Your task to perform on an android device: delete location history Image 0: 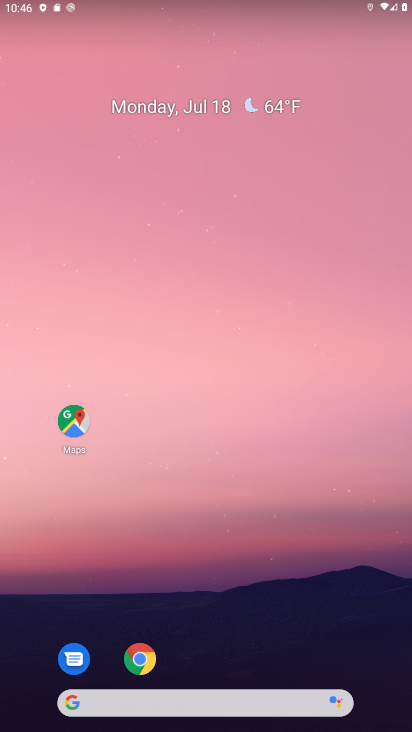
Step 0: drag from (206, 715) to (264, 5)
Your task to perform on an android device: delete location history Image 1: 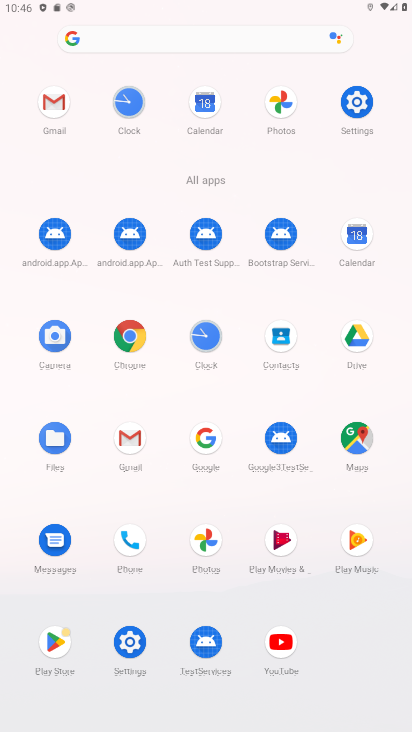
Step 1: click (352, 434)
Your task to perform on an android device: delete location history Image 2: 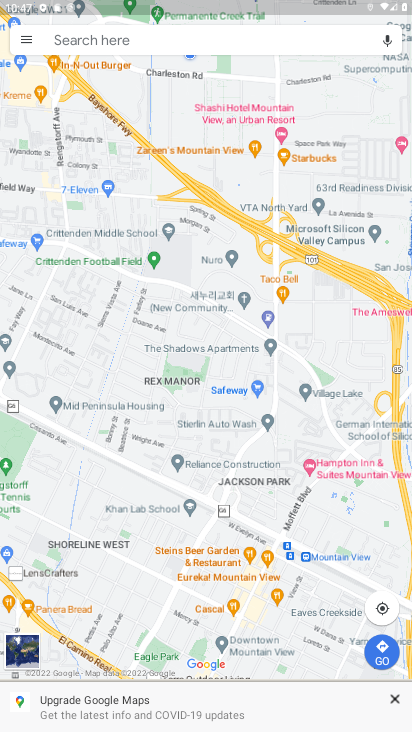
Step 2: click (35, 42)
Your task to perform on an android device: delete location history Image 3: 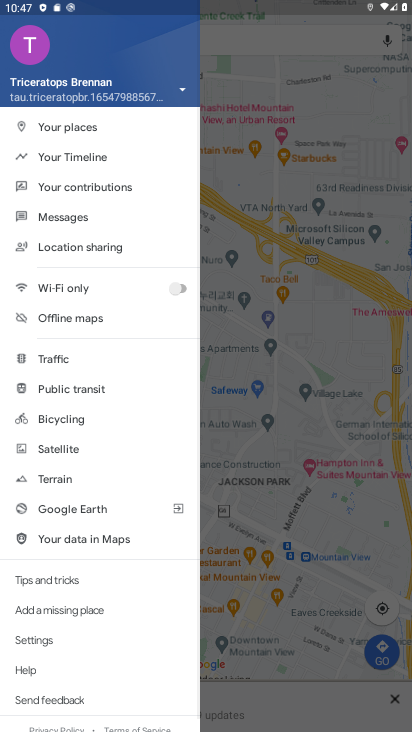
Step 3: click (61, 156)
Your task to perform on an android device: delete location history Image 4: 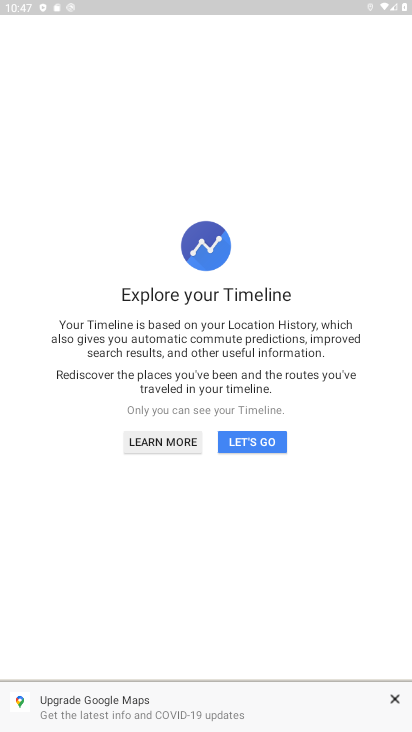
Step 4: click (246, 436)
Your task to perform on an android device: delete location history Image 5: 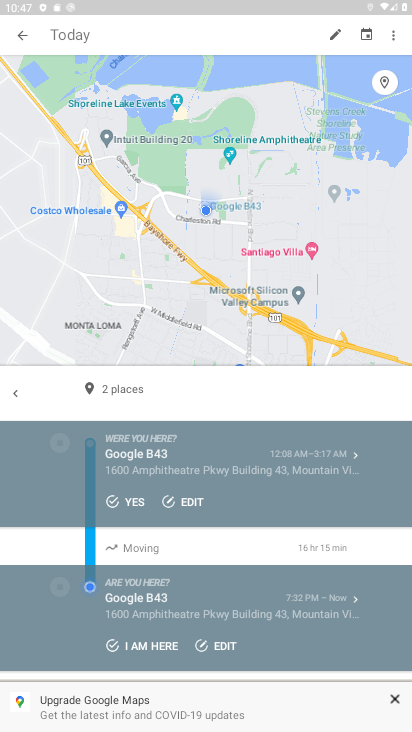
Step 5: click (389, 35)
Your task to perform on an android device: delete location history Image 6: 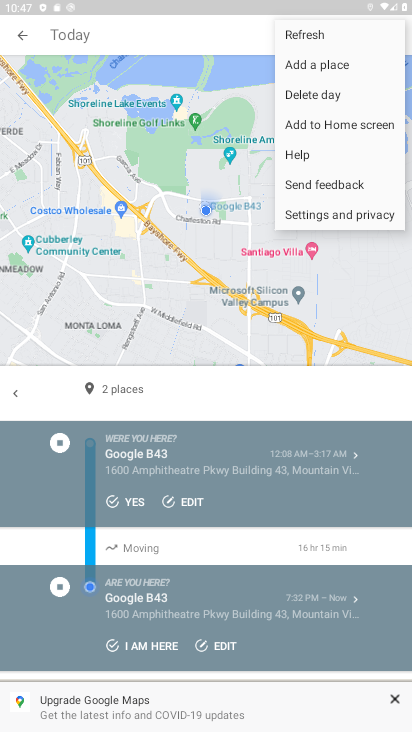
Step 6: click (346, 219)
Your task to perform on an android device: delete location history Image 7: 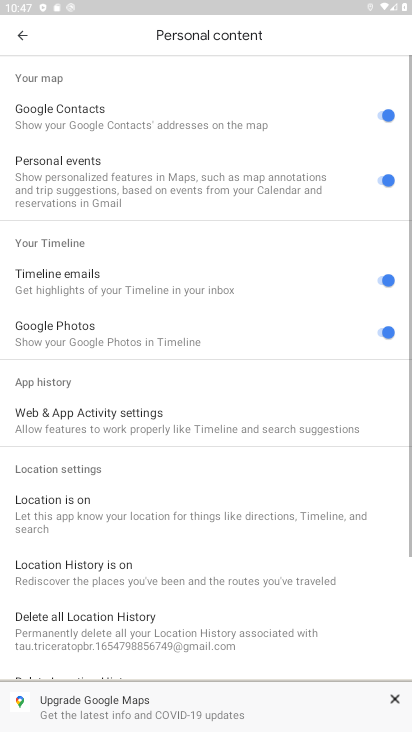
Step 7: drag from (121, 597) to (158, 206)
Your task to perform on an android device: delete location history Image 8: 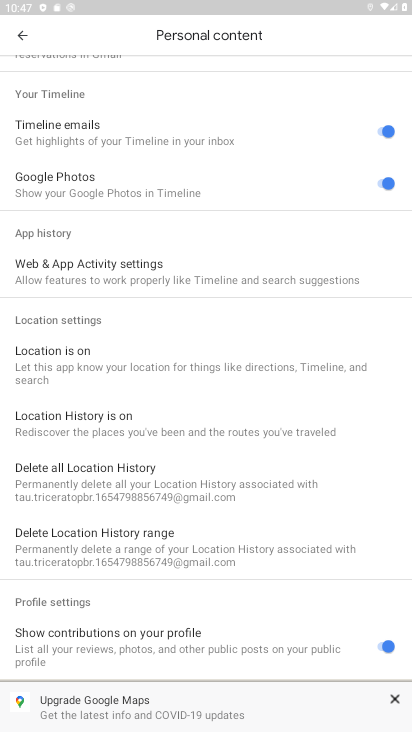
Step 8: click (164, 484)
Your task to perform on an android device: delete location history Image 9: 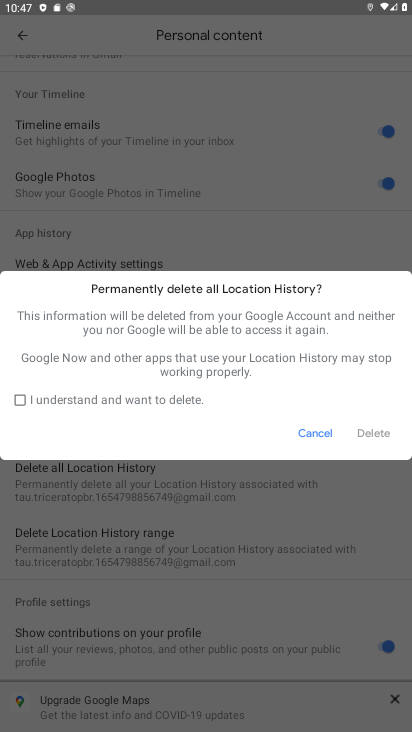
Step 9: click (371, 434)
Your task to perform on an android device: delete location history Image 10: 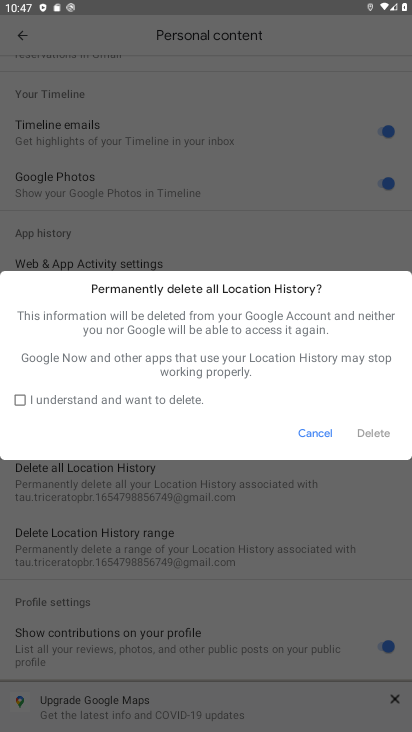
Step 10: click (19, 394)
Your task to perform on an android device: delete location history Image 11: 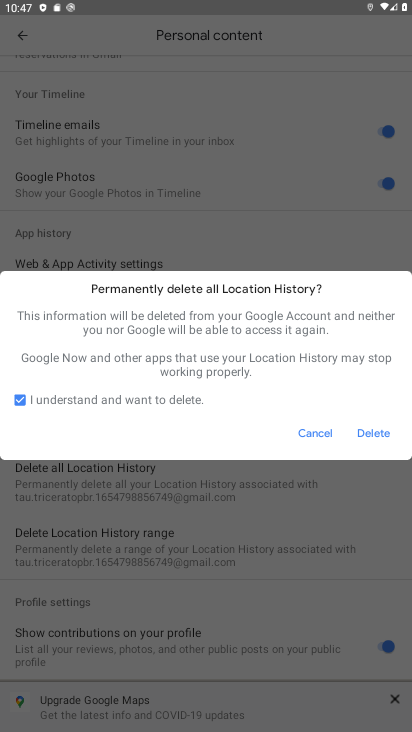
Step 11: click (377, 431)
Your task to perform on an android device: delete location history Image 12: 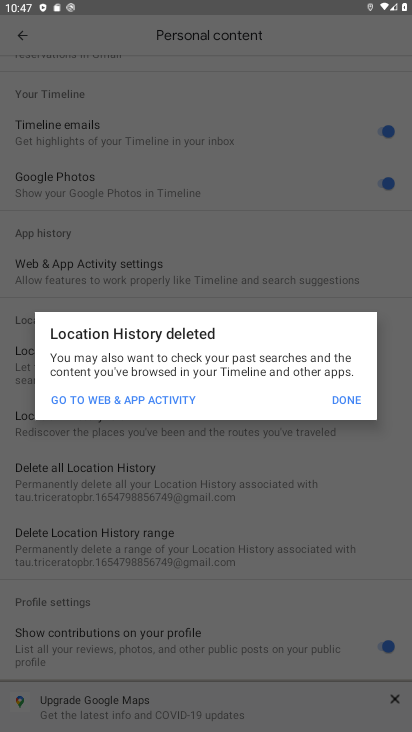
Step 12: click (342, 395)
Your task to perform on an android device: delete location history Image 13: 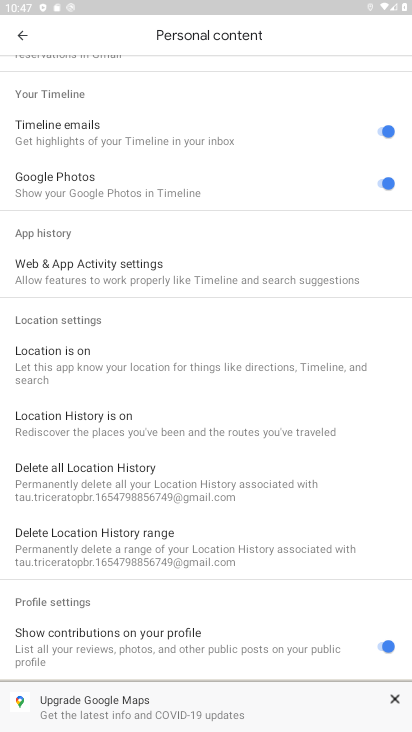
Step 13: task complete